Your task to perform on an android device: What is the news today? Image 0: 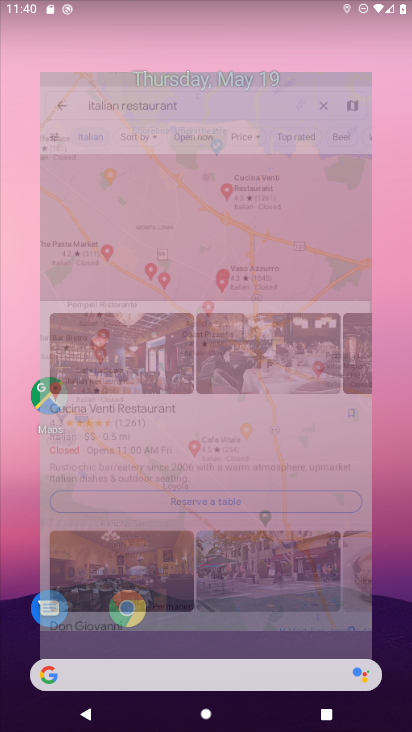
Step 0: press home button
Your task to perform on an android device: What is the news today? Image 1: 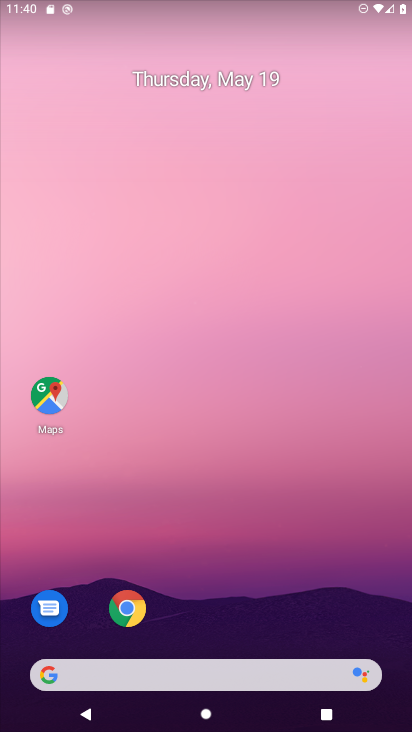
Step 1: click (134, 600)
Your task to perform on an android device: What is the news today? Image 2: 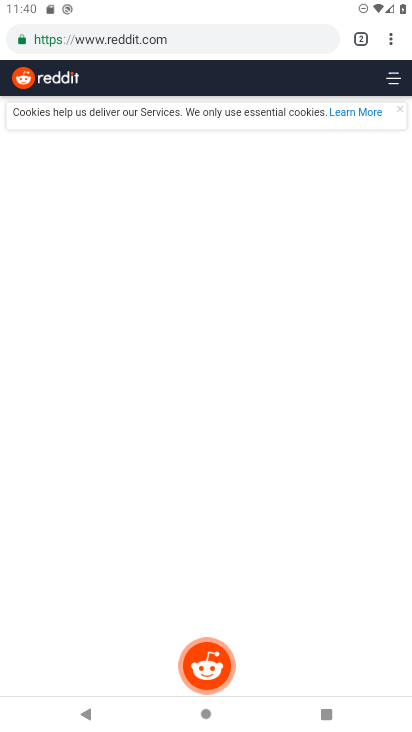
Step 2: click (235, 39)
Your task to perform on an android device: What is the news today? Image 3: 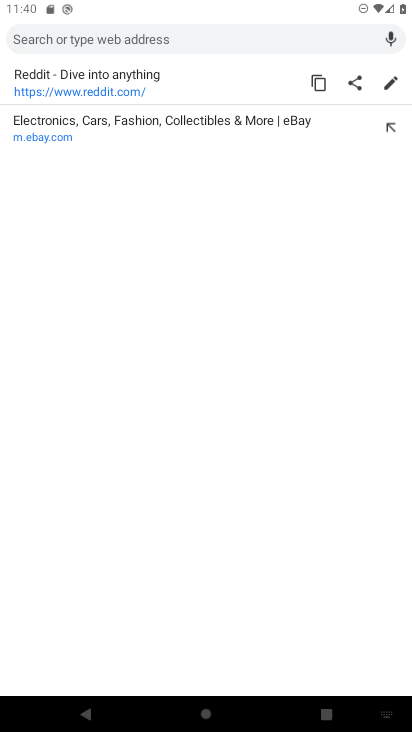
Step 3: type "What is the news today?"
Your task to perform on an android device: What is the news today? Image 4: 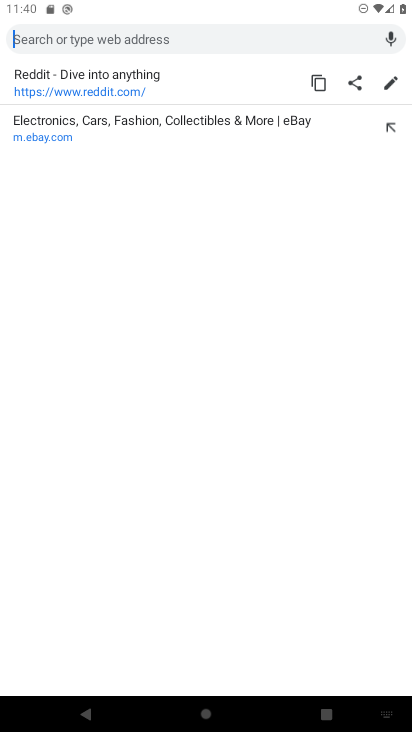
Step 4: click (137, 85)
Your task to perform on an android device: What is the news today? Image 5: 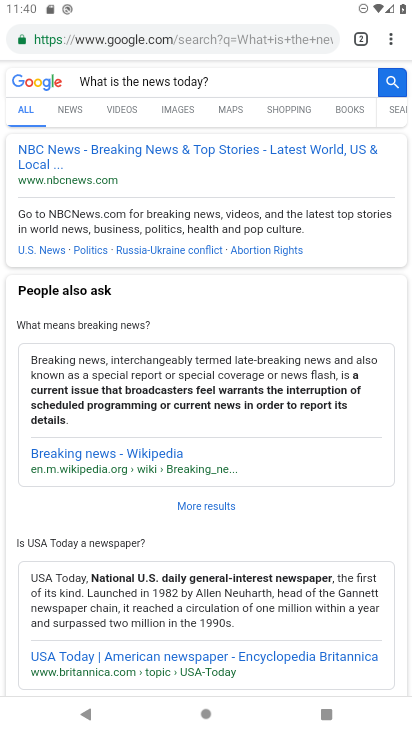
Step 5: task complete